Your task to perform on an android device: Go to Wikipedia Image 0: 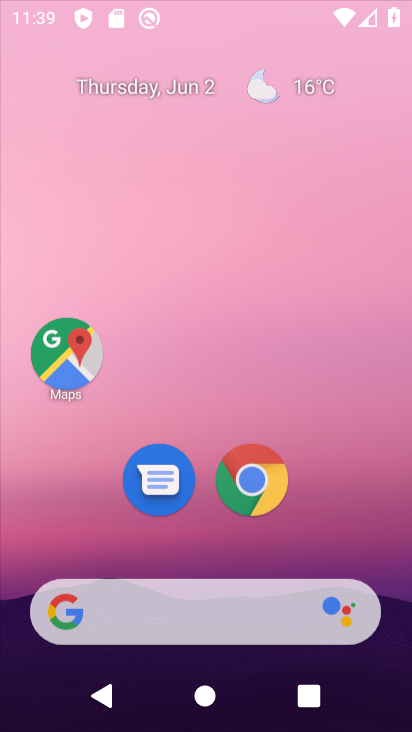
Step 0: press home button
Your task to perform on an android device: Go to Wikipedia Image 1: 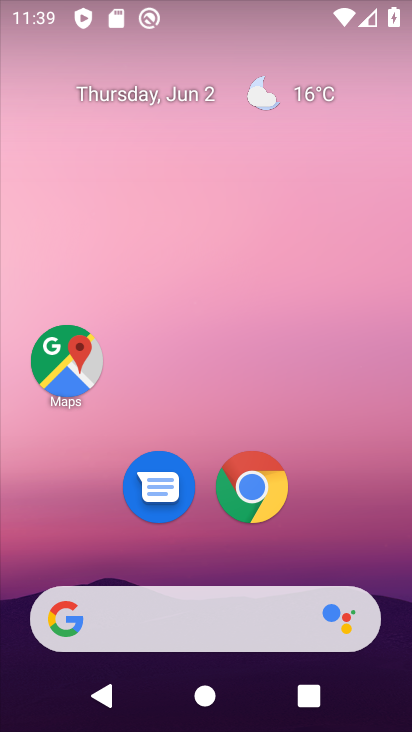
Step 1: click (66, 617)
Your task to perform on an android device: Go to Wikipedia Image 2: 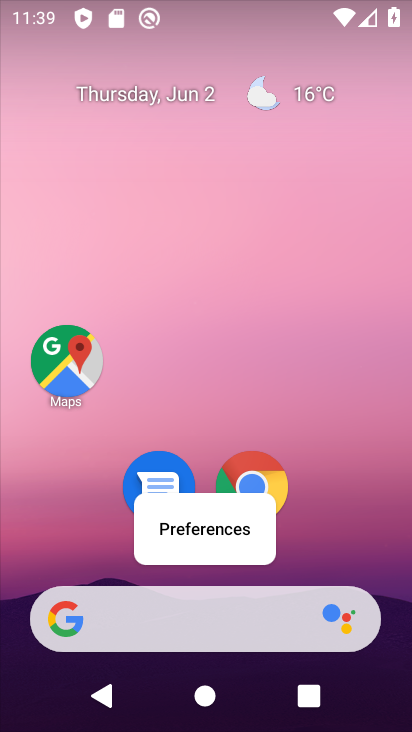
Step 2: click (66, 617)
Your task to perform on an android device: Go to Wikipedia Image 3: 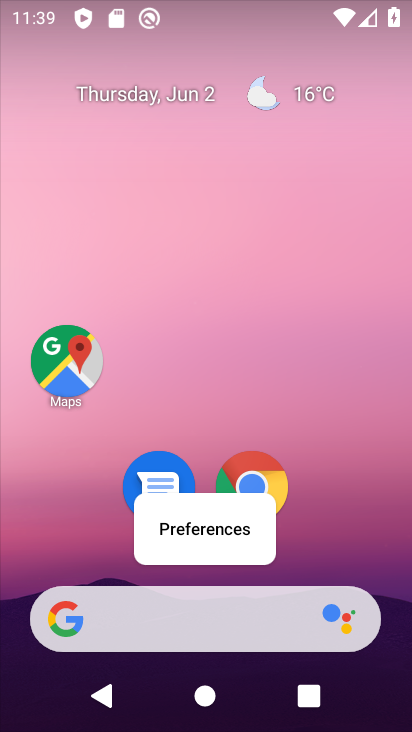
Step 3: click (66, 617)
Your task to perform on an android device: Go to Wikipedia Image 4: 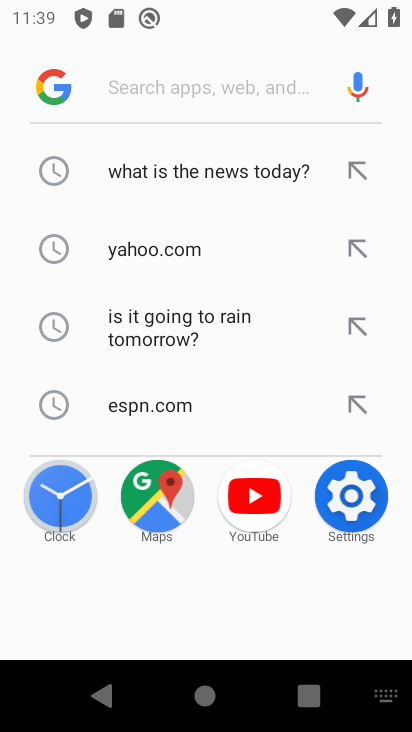
Step 4: type "Wikipedia"
Your task to perform on an android device: Go to Wikipedia Image 5: 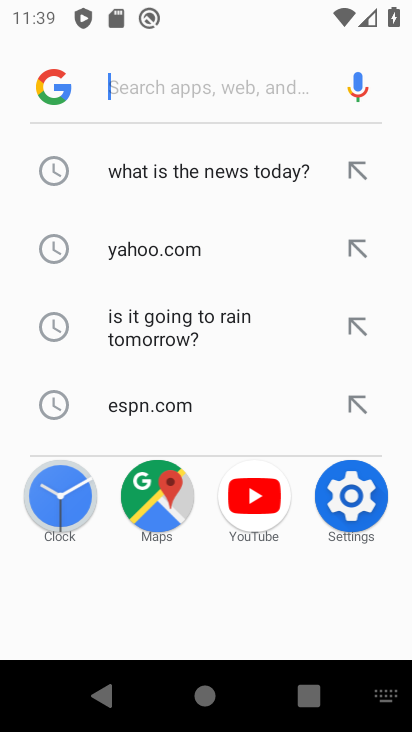
Step 5: click (249, 89)
Your task to perform on an android device: Go to Wikipedia Image 6: 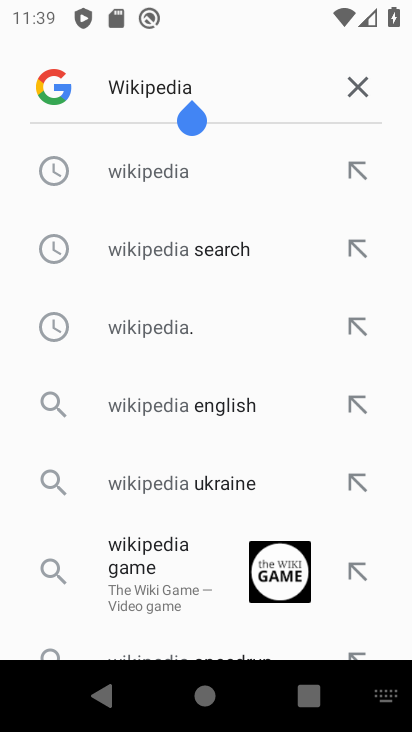
Step 6: click (148, 171)
Your task to perform on an android device: Go to Wikipedia Image 7: 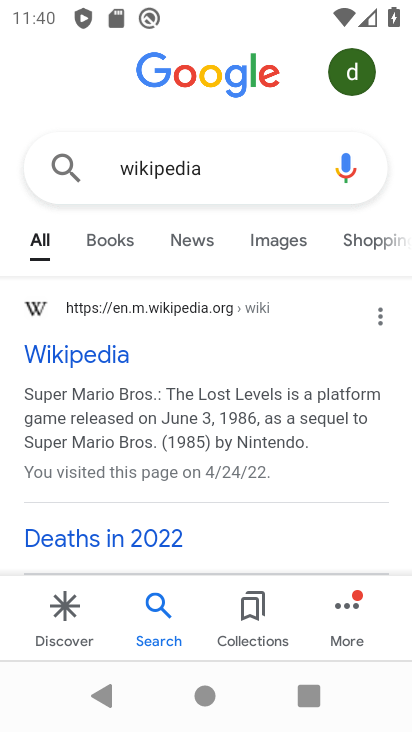
Step 7: click (69, 358)
Your task to perform on an android device: Go to Wikipedia Image 8: 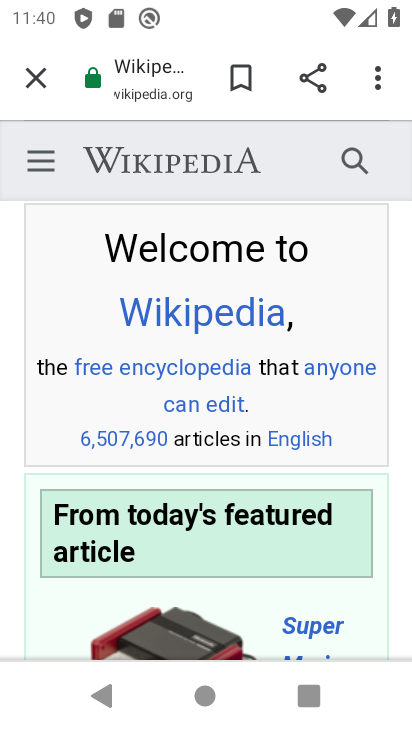
Step 8: task complete